Your task to perform on an android device: Open settings on Google Maps Image 0: 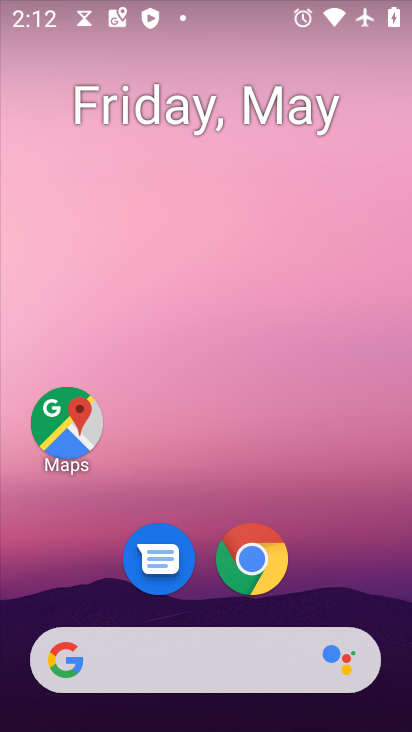
Step 0: click (61, 415)
Your task to perform on an android device: Open settings on Google Maps Image 1: 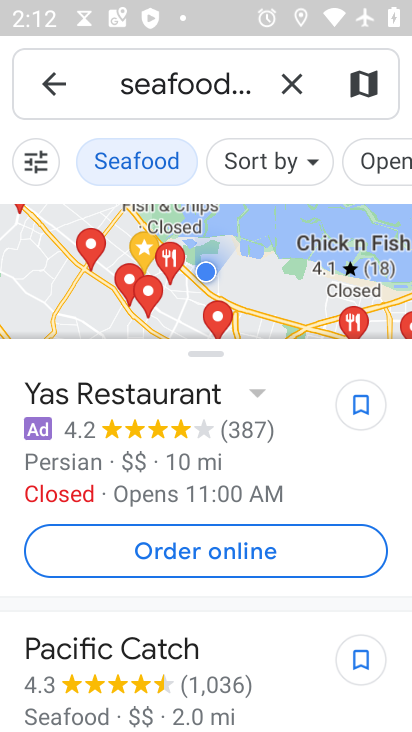
Step 1: click (293, 91)
Your task to perform on an android device: Open settings on Google Maps Image 2: 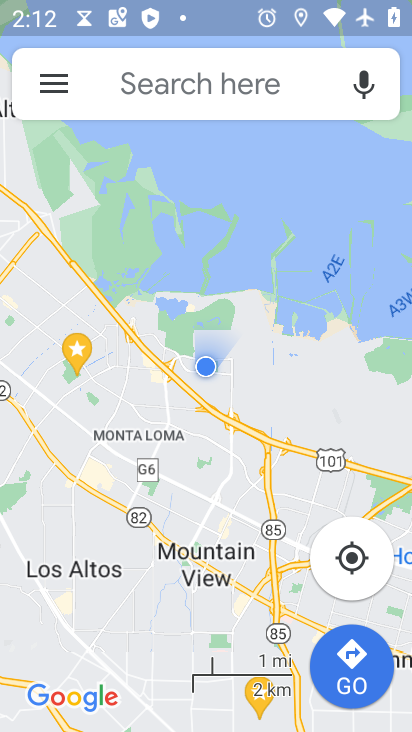
Step 2: click (59, 84)
Your task to perform on an android device: Open settings on Google Maps Image 3: 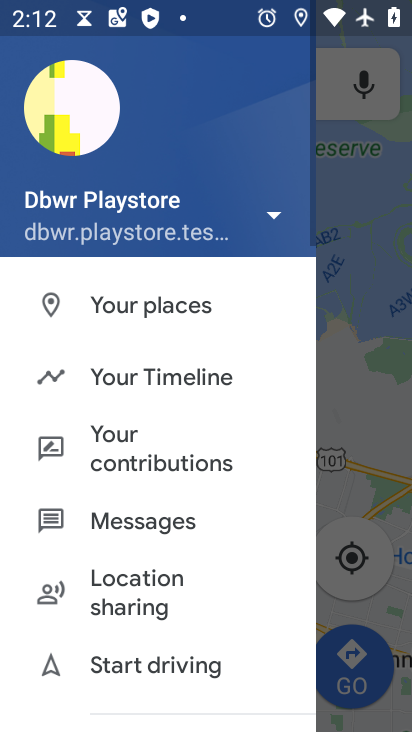
Step 3: drag from (159, 541) to (188, 249)
Your task to perform on an android device: Open settings on Google Maps Image 4: 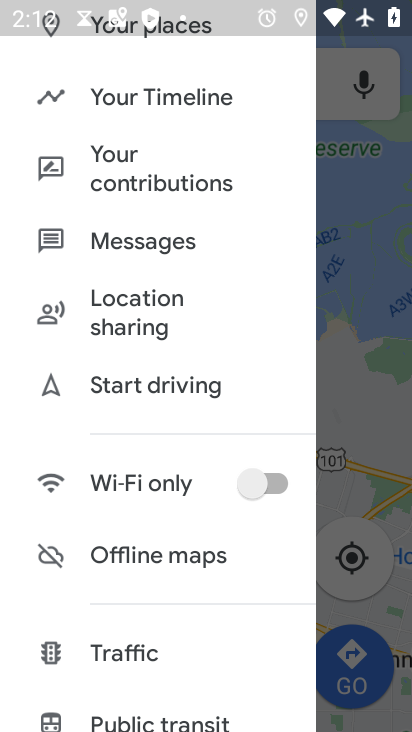
Step 4: click (202, 211)
Your task to perform on an android device: Open settings on Google Maps Image 5: 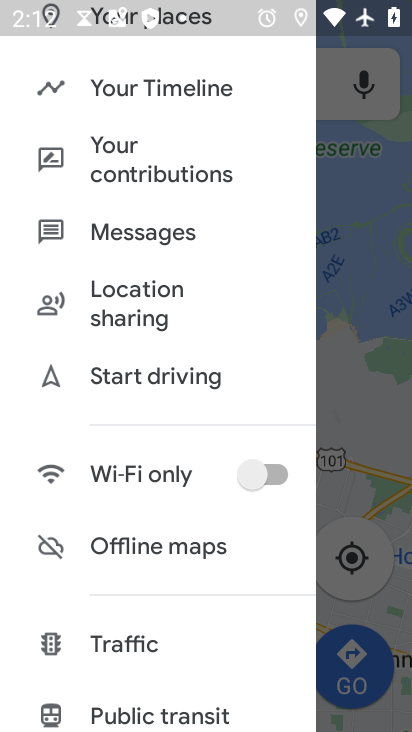
Step 5: drag from (173, 624) to (221, 261)
Your task to perform on an android device: Open settings on Google Maps Image 6: 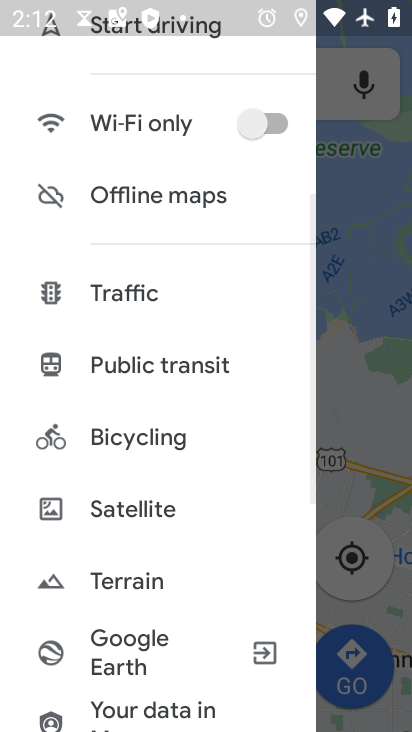
Step 6: drag from (144, 647) to (181, 251)
Your task to perform on an android device: Open settings on Google Maps Image 7: 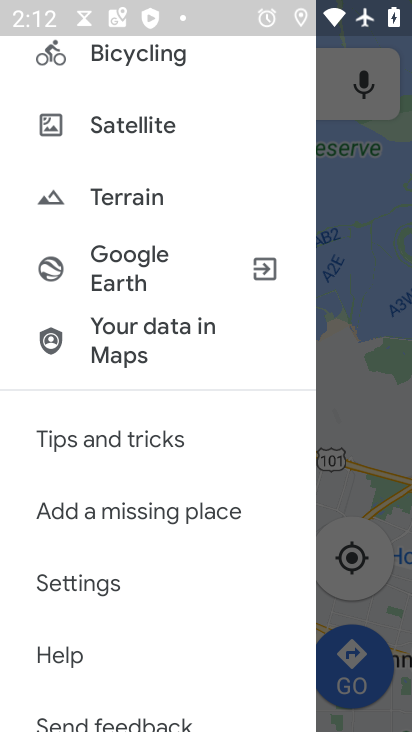
Step 7: click (143, 576)
Your task to perform on an android device: Open settings on Google Maps Image 8: 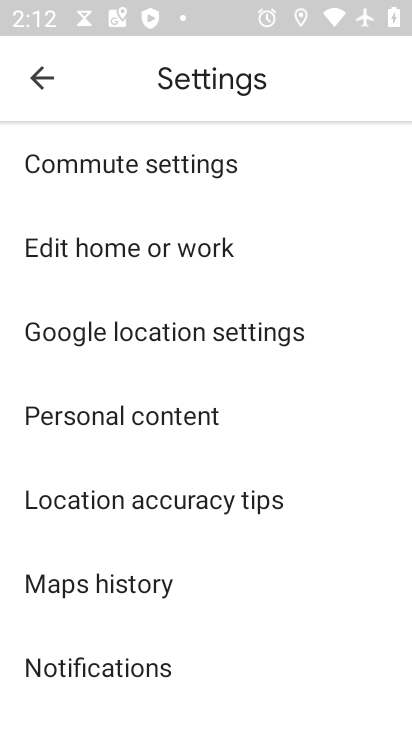
Step 8: task complete